Your task to perform on an android device: Go to display settings Image 0: 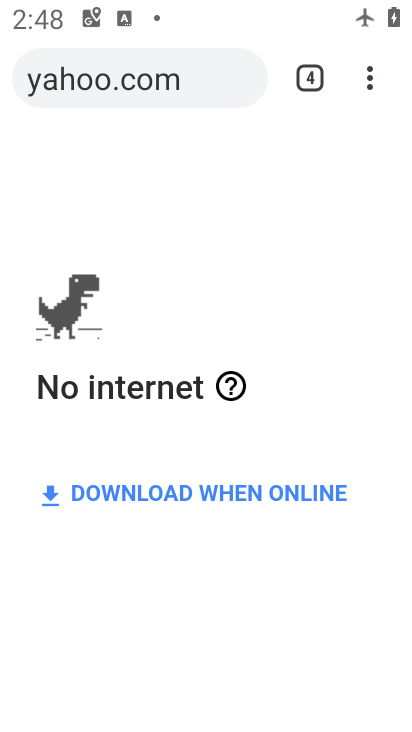
Step 0: press home button
Your task to perform on an android device: Go to display settings Image 1: 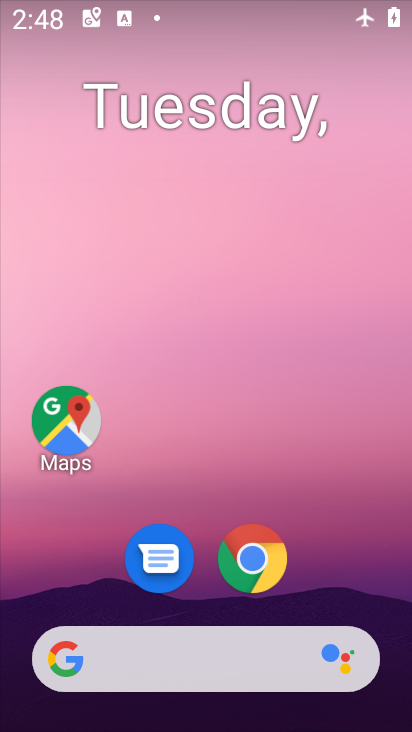
Step 1: drag from (191, 503) to (191, 150)
Your task to perform on an android device: Go to display settings Image 2: 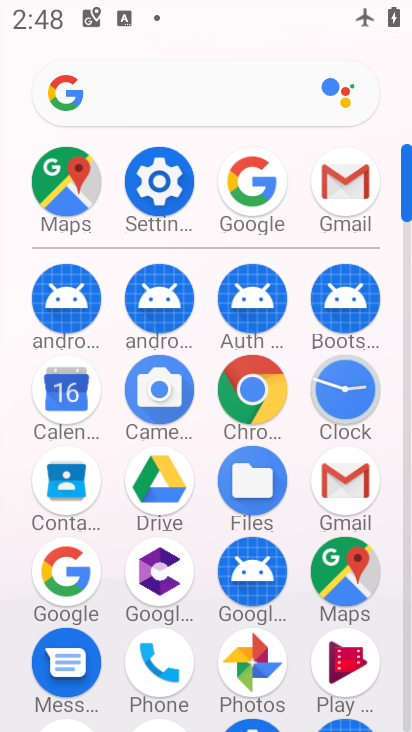
Step 2: click (181, 177)
Your task to perform on an android device: Go to display settings Image 3: 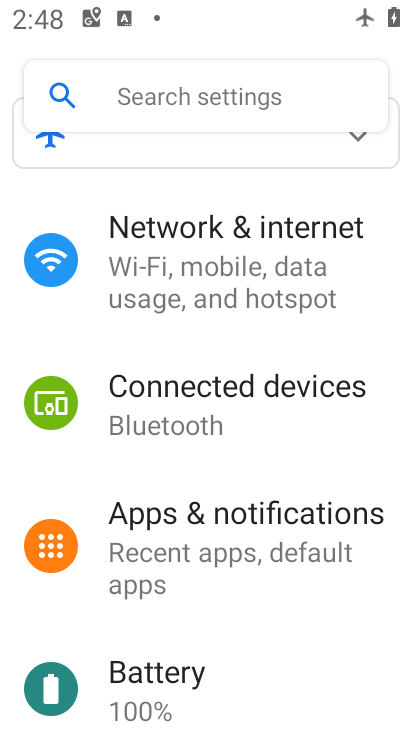
Step 3: drag from (246, 656) to (241, 267)
Your task to perform on an android device: Go to display settings Image 4: 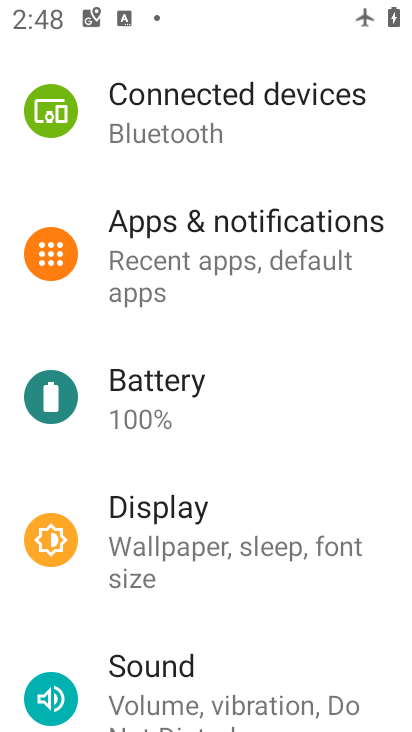
Step 4: click (160, 520)
Your task to perform on an android device: Go to display settings Image 5: 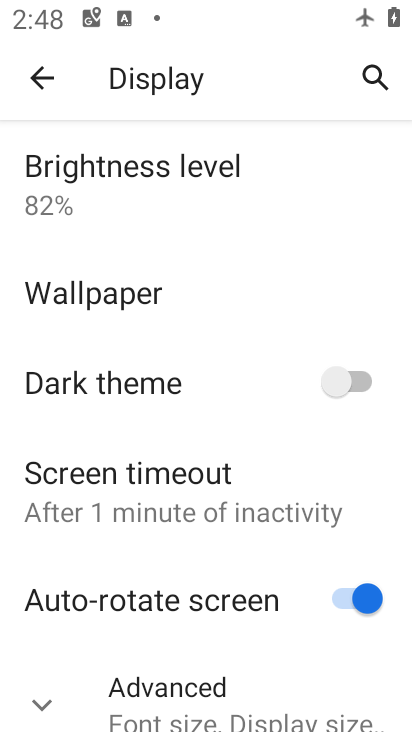
Step 5: task complete